Your task to perform on an android device: add a contact Image 0: 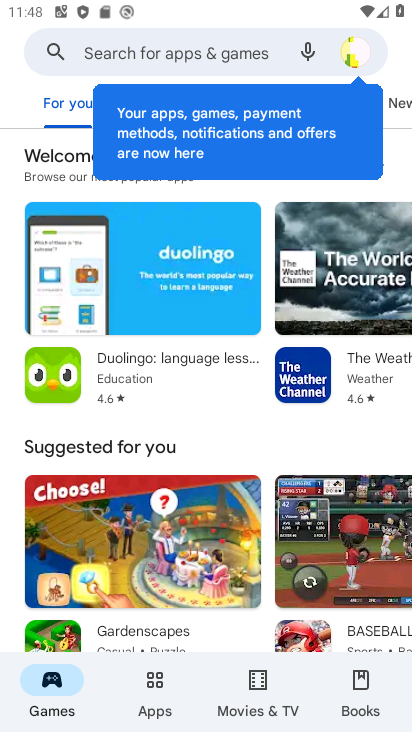
Step 0: press home button
Your task to perform on an android device: add a contact Image 1: 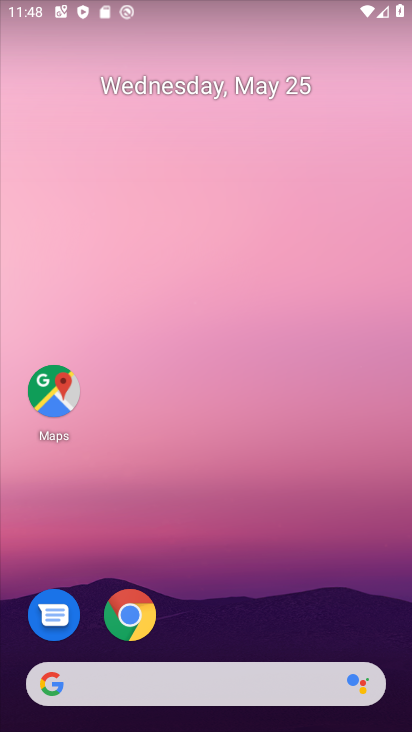
Step 1: drag from (193, 636) to (163, 161)
Your task to perform on an android device: add a contact Image 2: 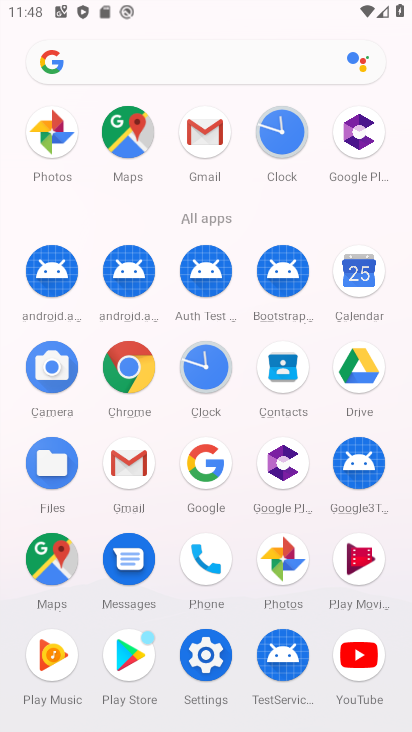
Step 2: click (294, 375)
Your task to perform on an android device: add a contact Image 3: 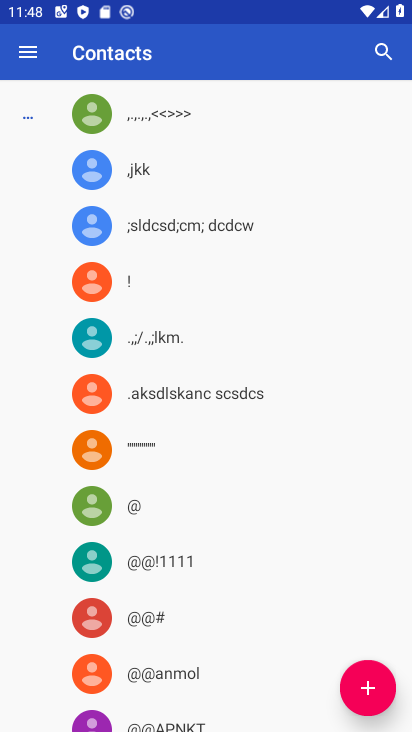
Step 3: click (380, 676)
Your task to perform on an android device: add a contact Image 4: 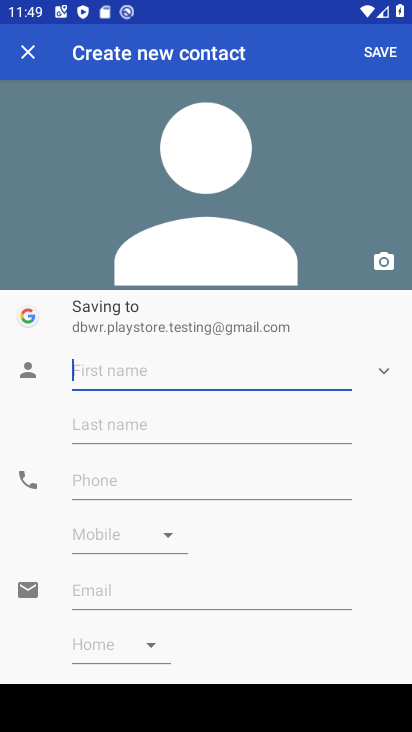
Step 4: click (216, 377)
Your task to perform on an android device: add a contact Image 5: 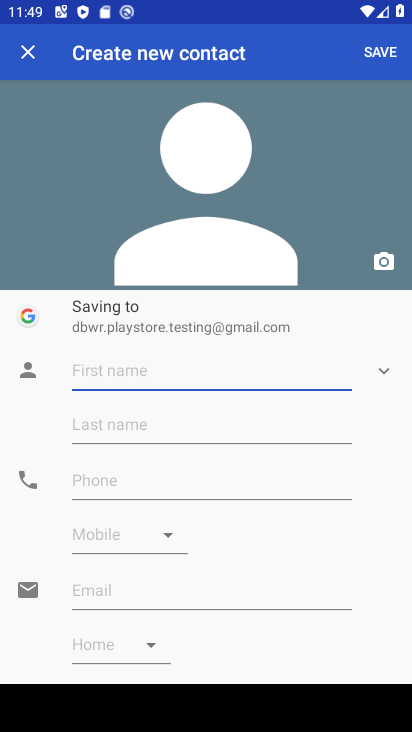
Step 5: type "jkdjffjkd"
Your task to perform on an android device: add a contact Image 6: 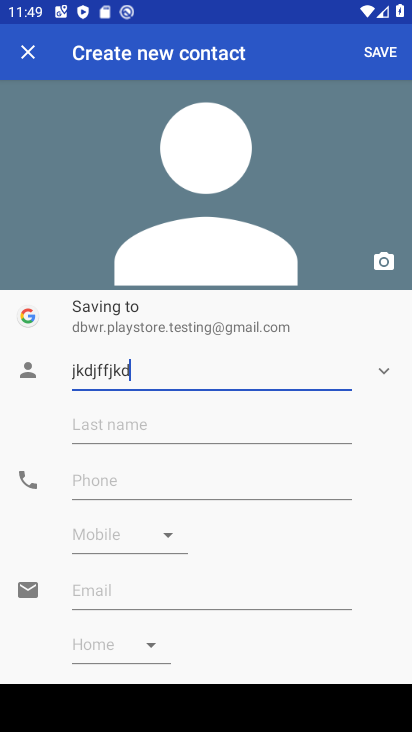
Step 6: click (153, 476)
Your task to perform on an android device: add a contact Image 7: 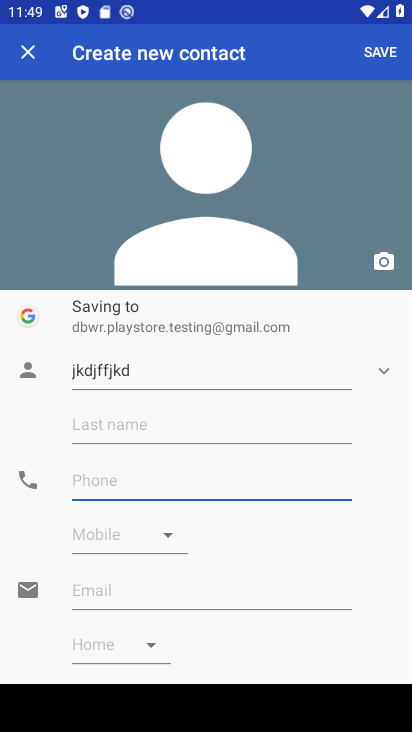
Step 7: type "87978798"
Your task to perform on an android device: add a contact Image 8: 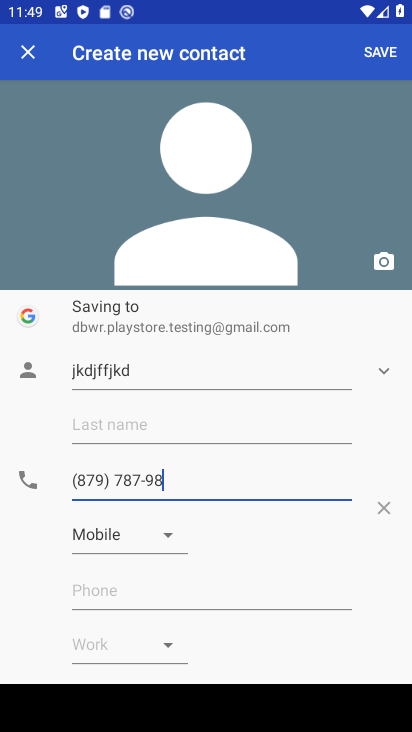
Step 8: click (386, 50)
Your task to perform on an android device: add a contact Image 9: 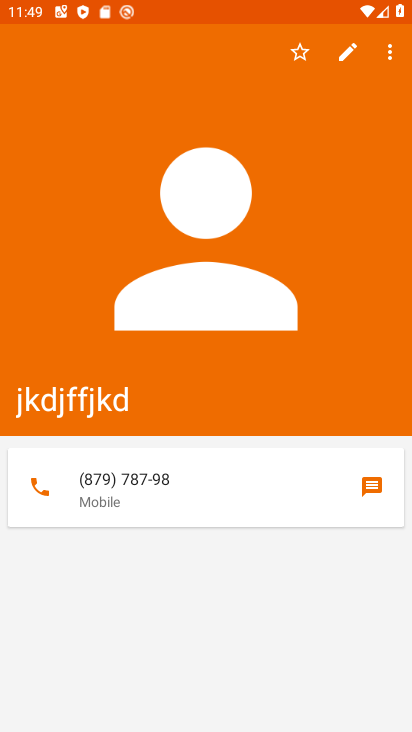
Step 9: task complete